Your task to perform on an android device: Open Youtube and go to the subscriptions tab Image 0: 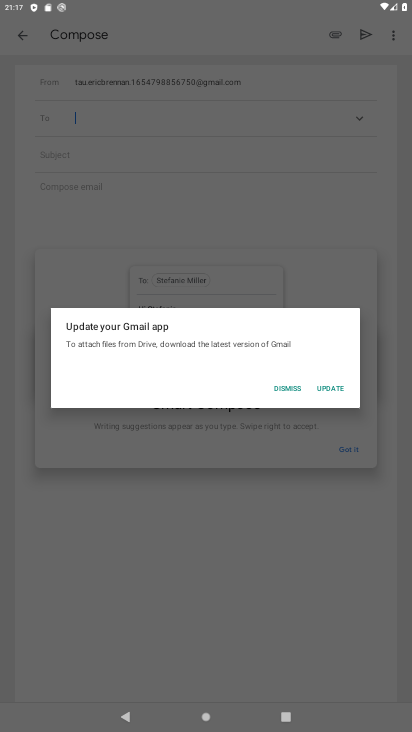
Step 0: press home button
Your task to perform on an android device: Open Youtube and go to the subscriptions tab Image 1: 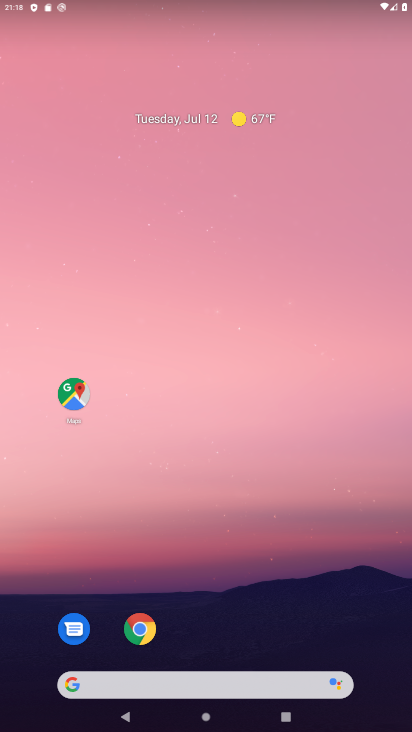
Step 1: drag from (236, 673) to (340, 7)
Your task to perform on an android device: Open Youtube and go to the subscriptions tab Image 2: 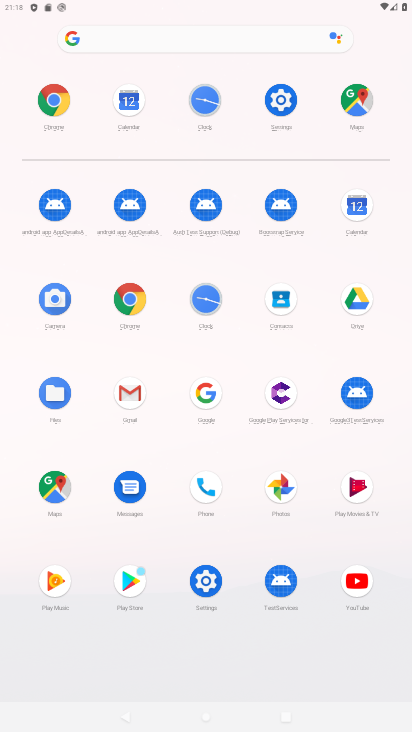
Step 2: click (351, 578)
Your task to perform on an android device: Open Youtube and go to the subscriptions tab Image 3: 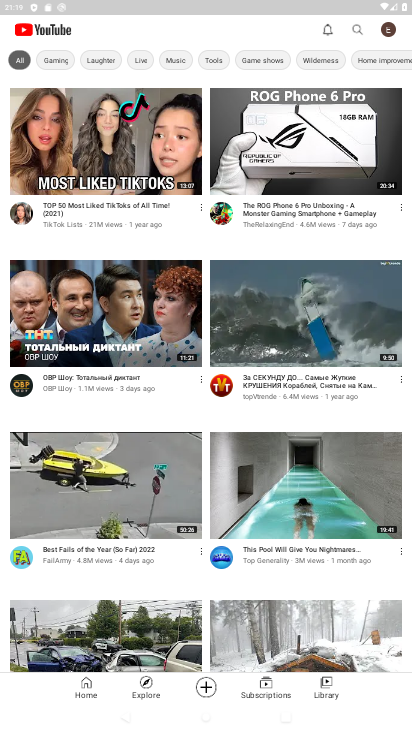
Step 3: click (263, 688)
Your task to perform on an android device: Open Youtube and go to the subscriptions tab Image 4: 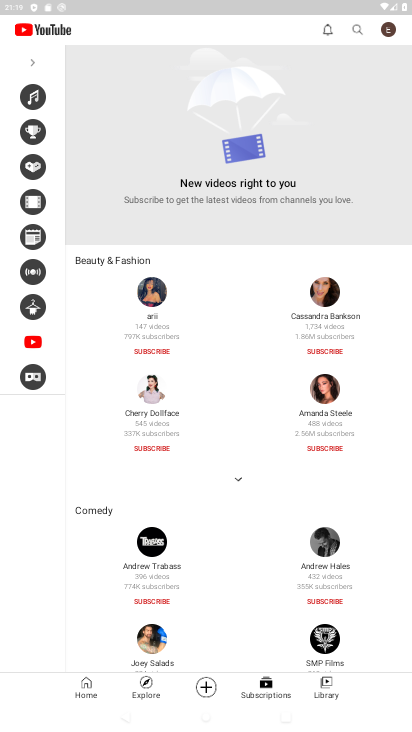
Step 4: task complete